Your task to perform on an android device: Open location settings Image 0: 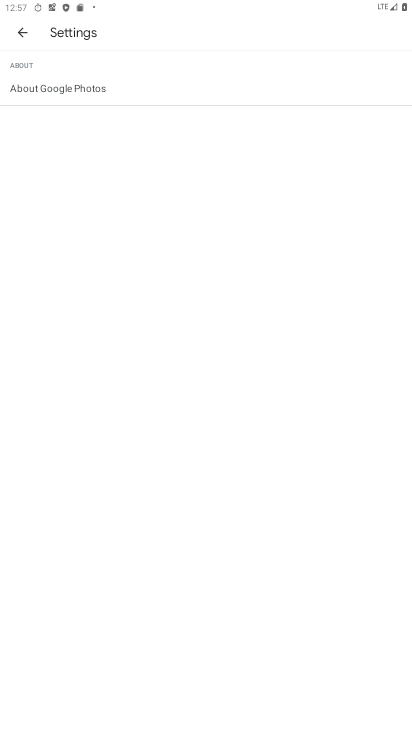
Step 0: press home button
Your task to perform on an android device: Open location settings Image 1: 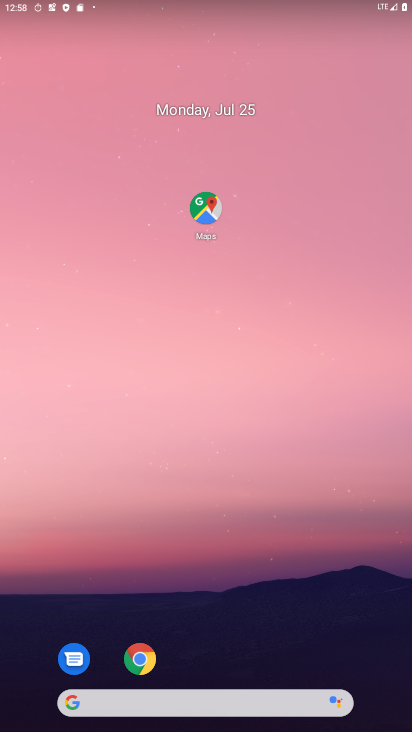
Step 1: drag from (174, 369) to (230, 105)
Your task to perform on an android device: Open location settings Image 2: 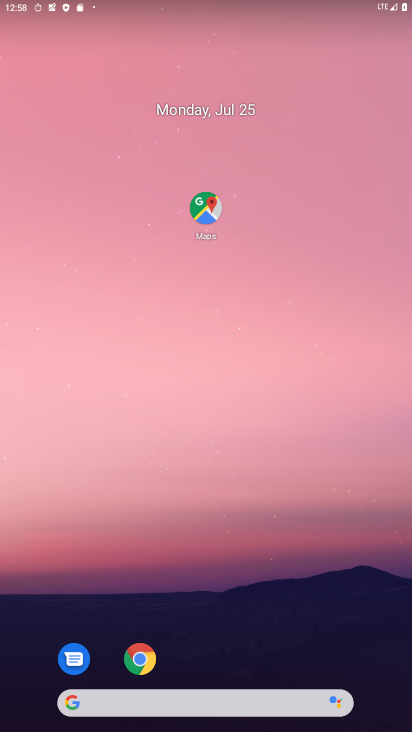
Step 2: drag from (162, 353) to (195, 182)
Your task to perform on an android device: Open location settings Image 3: 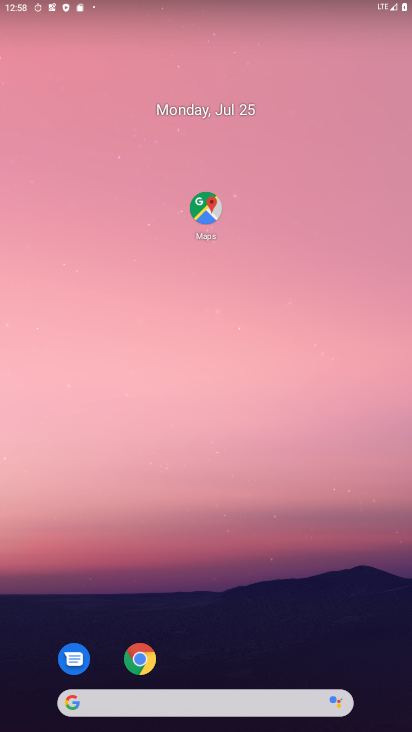
Step 3: drag from (201, 142) to (227, 10)
Your task to perform on an android device: Open location settings Image 4: 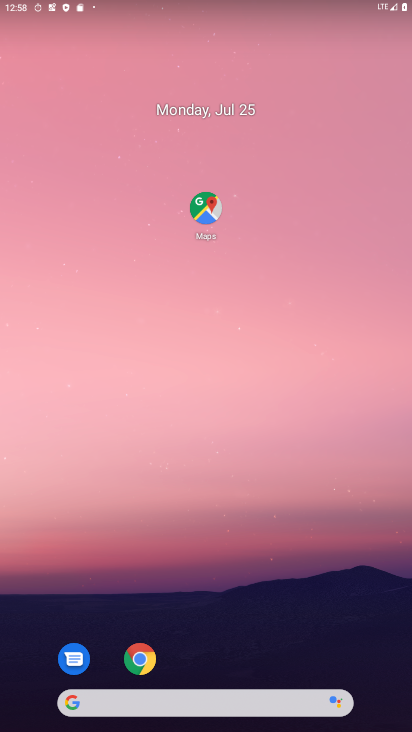
Step 4: drag from (56, 624) to (25, 160)
Your task to perform on an android device: Open location settings Image 5: 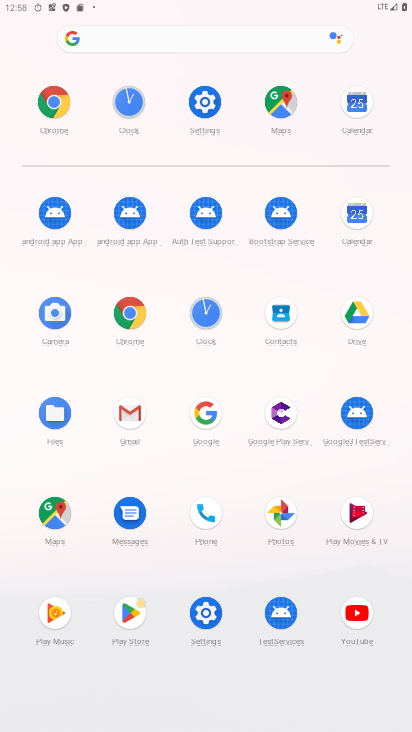
Step 5: click (206, 619)
Your task to perform on an android device: Open location settings Image 6: 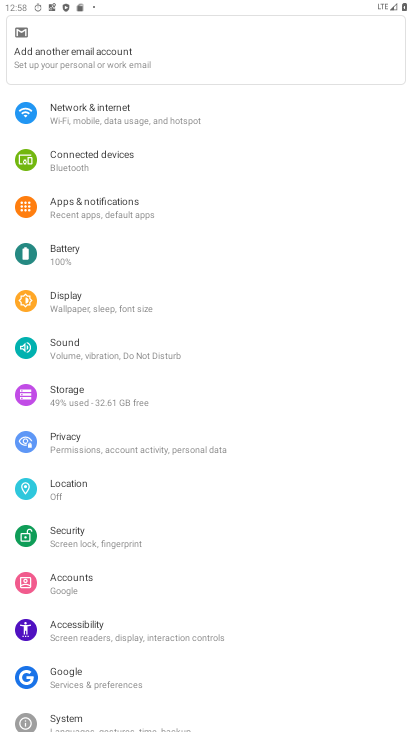
Step 6: click (120, 486)
Your task to perform on an android device: Open location settings Image 7: 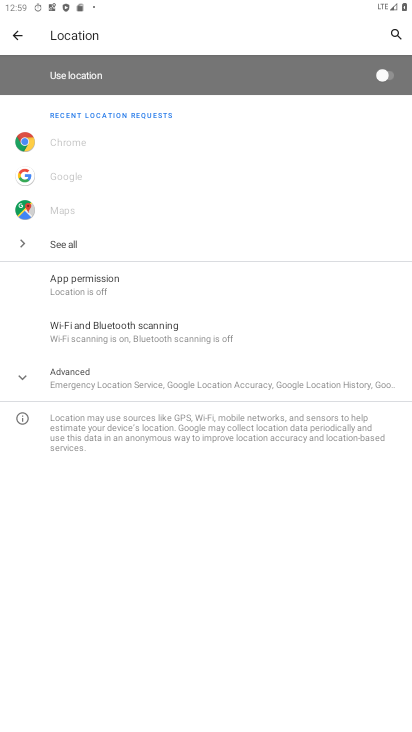
Step 7: click (389, 73)
Your task to perform on an android device: Open location settings Image 8: 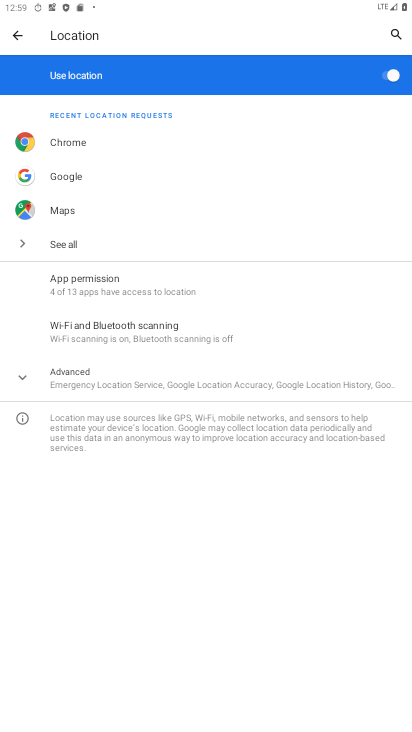
Step 8: task complete